Your task to perform on an android device: Turn off the flashlight Image 0: 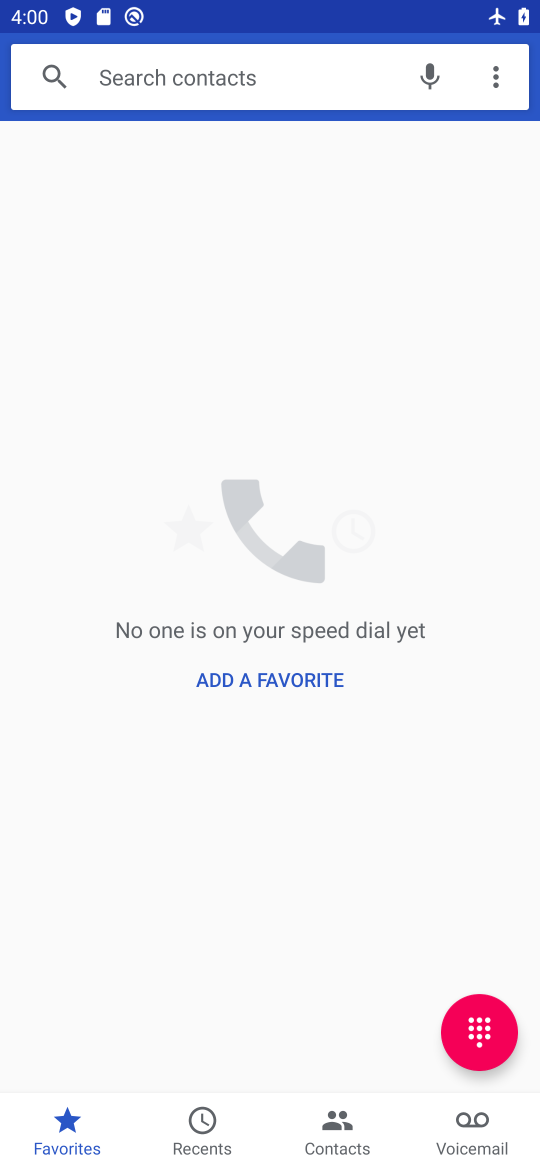
Step 0: task complete